Your task to perform on an android device: Go to Amazon Image 0: 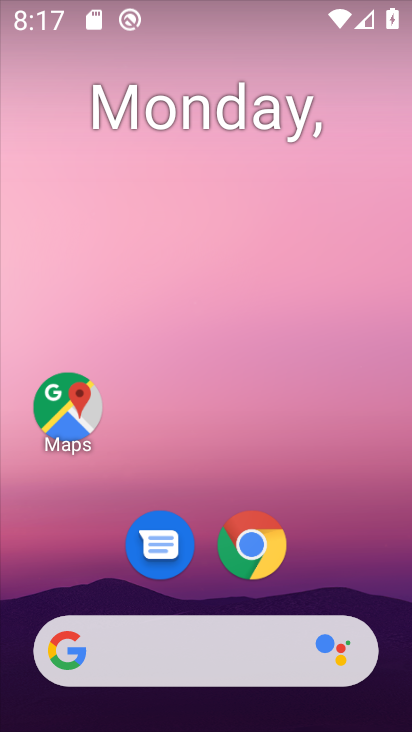
Step 0: drag from (332, 592) to (399, 183)
Your task to perform on an android device: Go to Amazon Image 1: 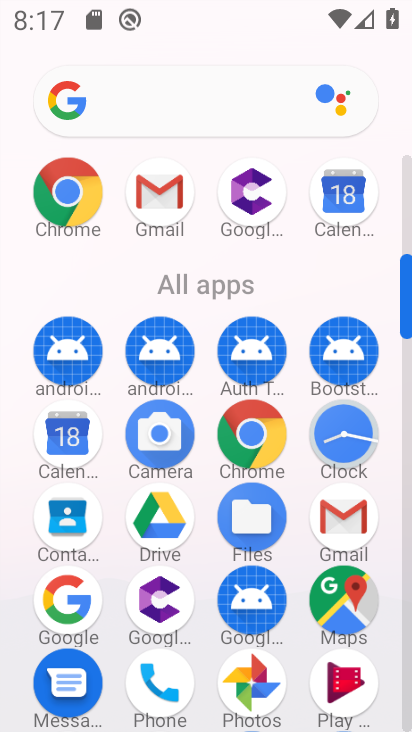
Step 1: click (58, 198)
Your task to perform on an android device: Go to Amazon Image 2: 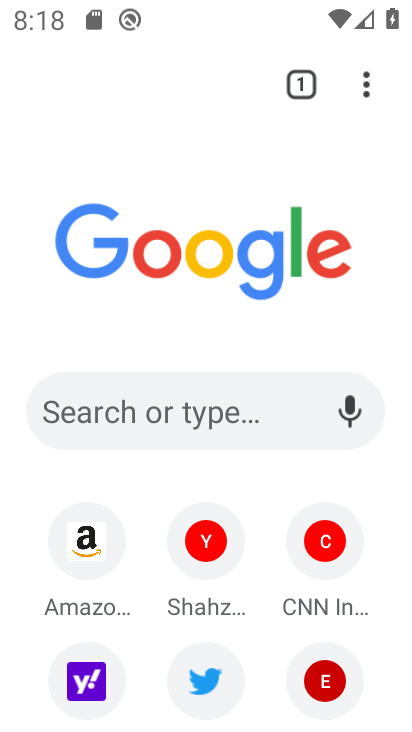
Step 2: click (84, 534)
Your task to perform on an android device: Go to Amazon Image 3: 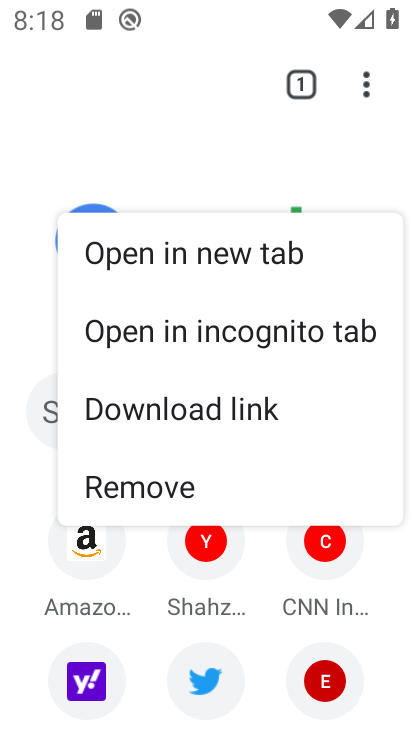
Step 3: click (134, 130)
Your task to perform on an android device: Go to Amazon Image 4: 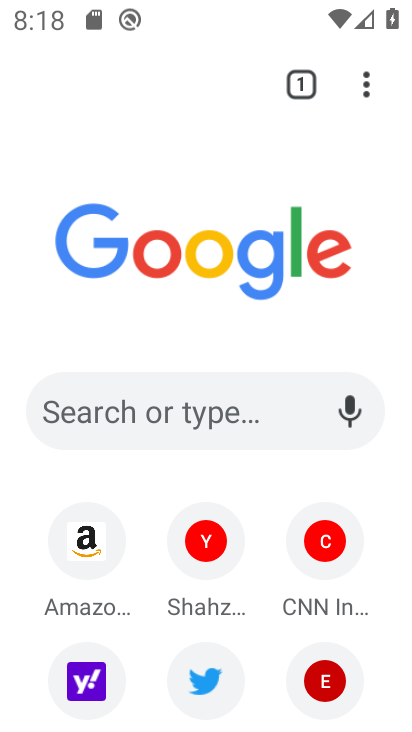
Step 4: click (92, 543)
Your task to perform on an android device: Go to Amazon Image 5: 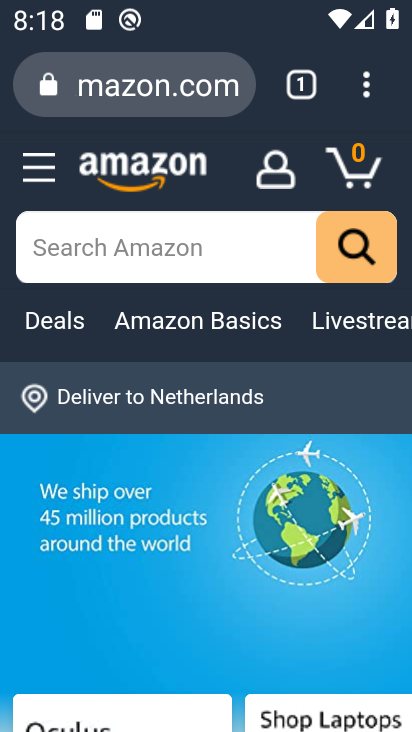
Step 5: task complete